Your task to perform on an android device: clear all cookies in the chrome app Image 0: 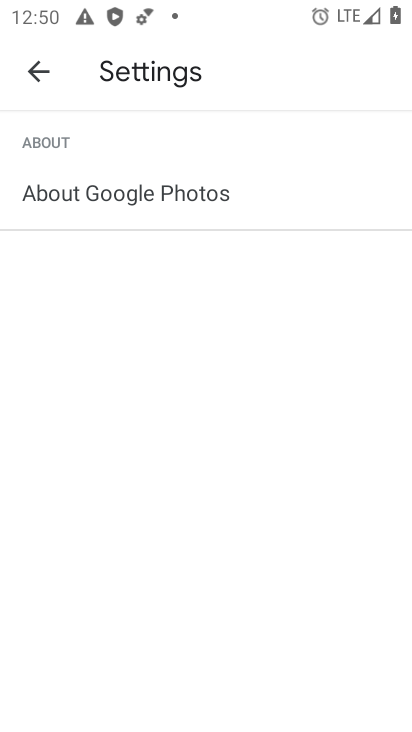
Step 0: press home button
Your task to perform on an android device: clear all cookies in the chrome app Image 1: 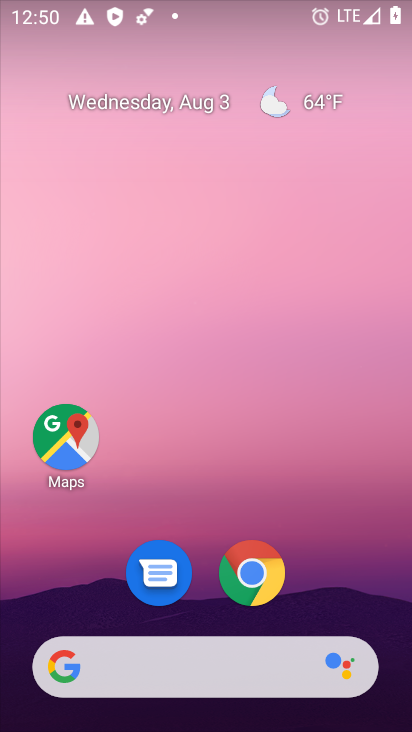
Step 1: drag from (179, 659) to (250, 130)
Your task to perform on an android device: clear all cookies in the chrome app Image 2: 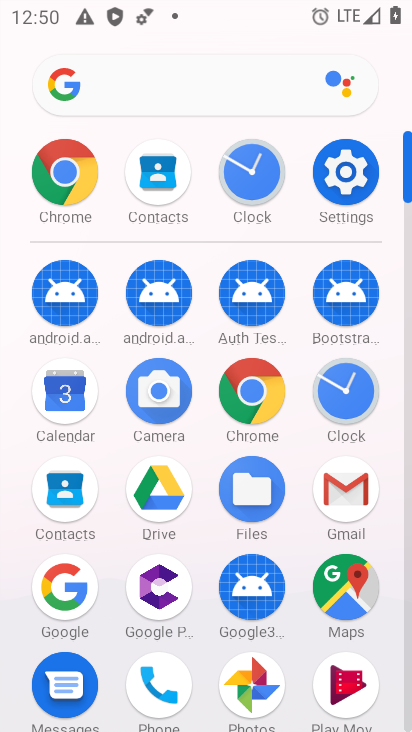
Step 2: click (267, 397)
Your task to perform on an android device: clear all cookies in the chrome app Image 3: 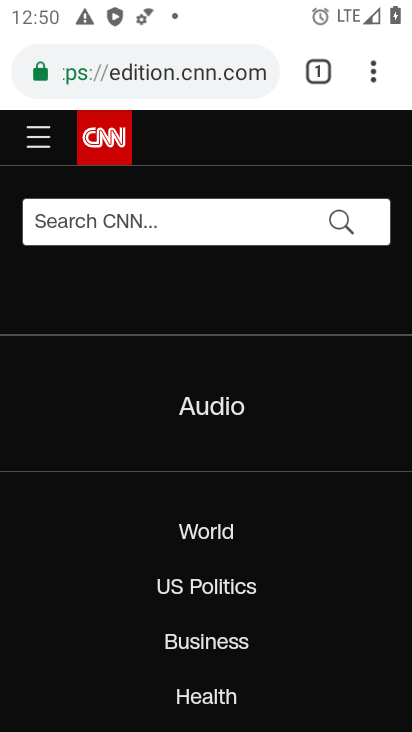
Step 3: click (369, 80)
Your task to perform on an android device: clear all cookies in the chrome app Image 4: 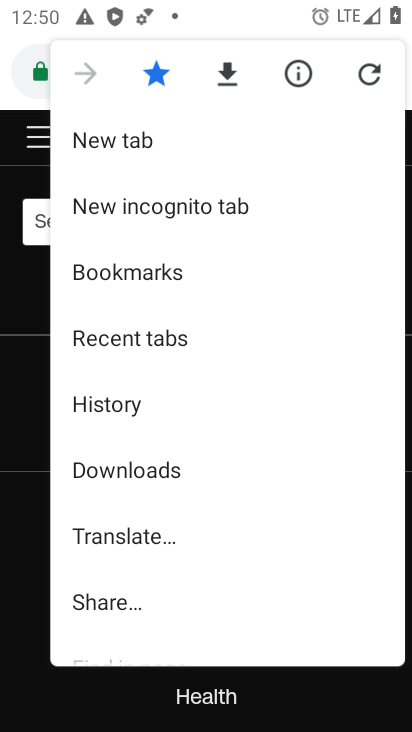
Step 4: click (160, 392)
Your task to perform on an android device: clear all cookies in the chrome app Image 5: 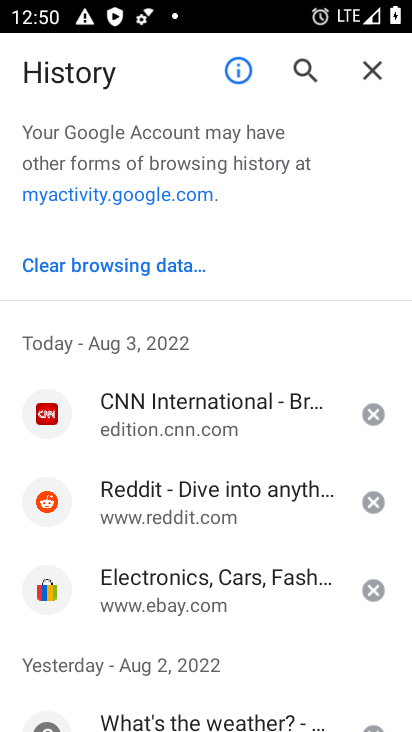
Step 5: click (121, 277)
Your task to perform on an android device: clear all cookies in the chrome app Image 6: 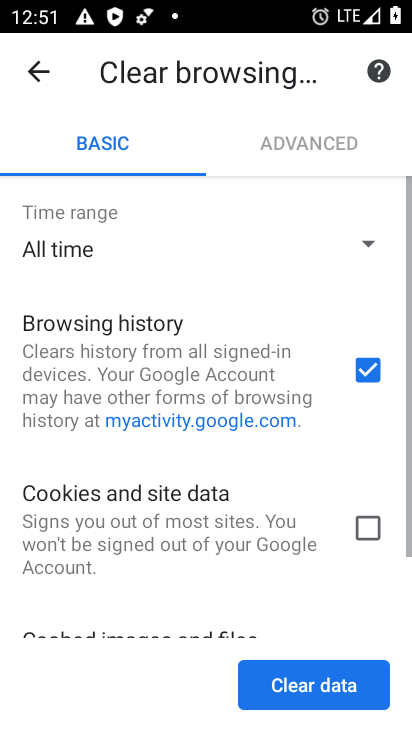
Step 6: drag from (246, 523) to (294, 371)
Your task to perform on an android device: clear all cookies in the chrome app Image 7: 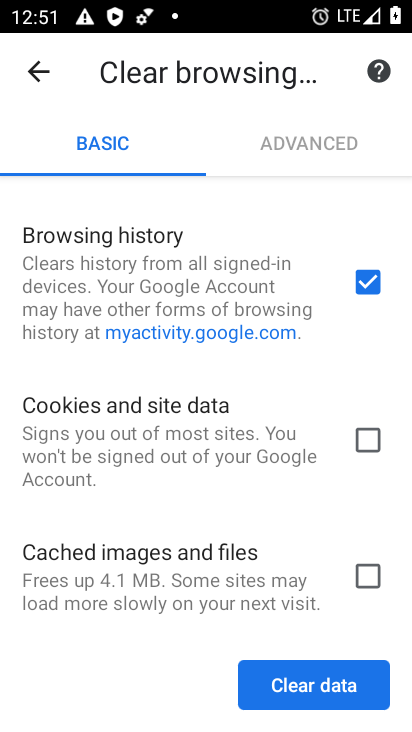
Step 7: click (373, 280)
Your task to perform on an android device: clear all cookies in the chrome app Image 8: 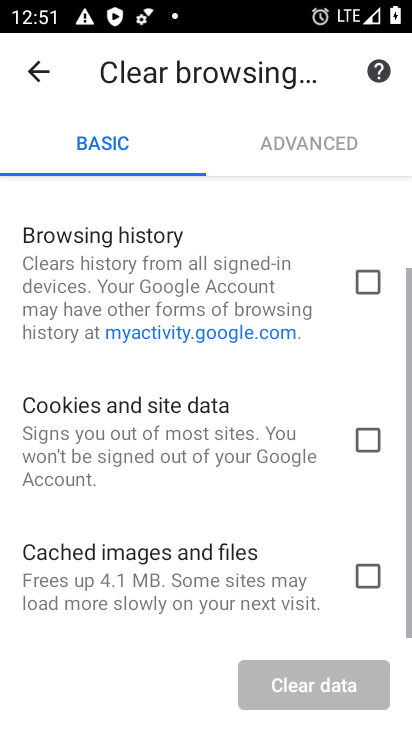
Step 8: click (367, 446)
Your task to perform on an android device: clear all cookies in the chrome app Image 9: 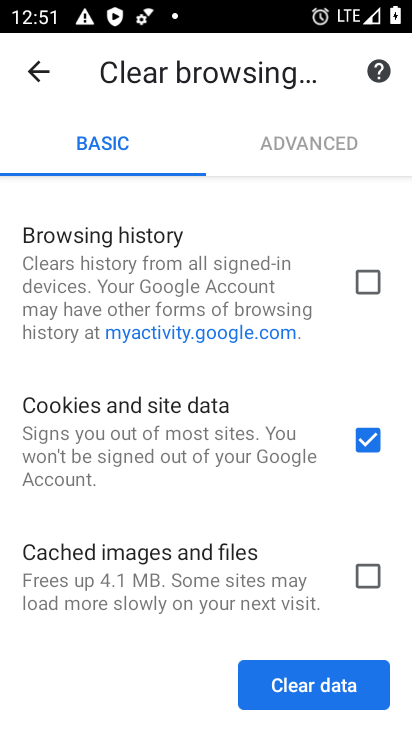
Step 9: click (290, 694)
Your task to perform on an android device: clear all cookies in the chrome app Image 10: 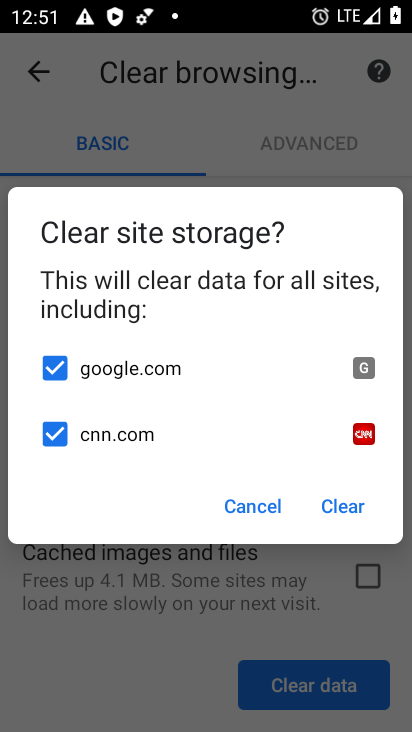
Step 10: click (364, 506)
Your task to perform on an android device: clear all cookies in the chrome app Image 11: 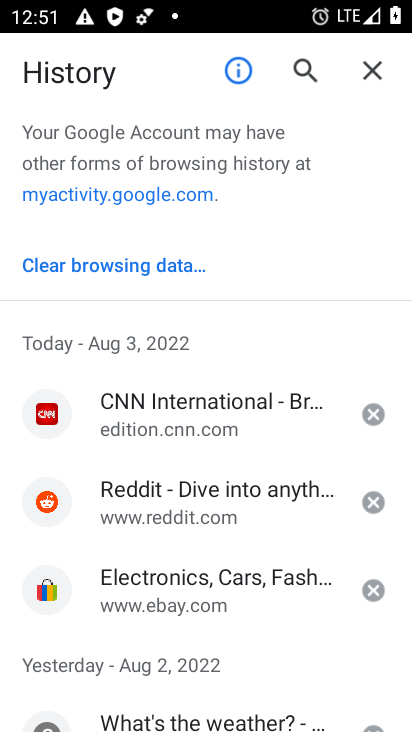
Step 11: task complete